Your task to perform on an android device: Set the phone to "Do not disturb". Image 0: 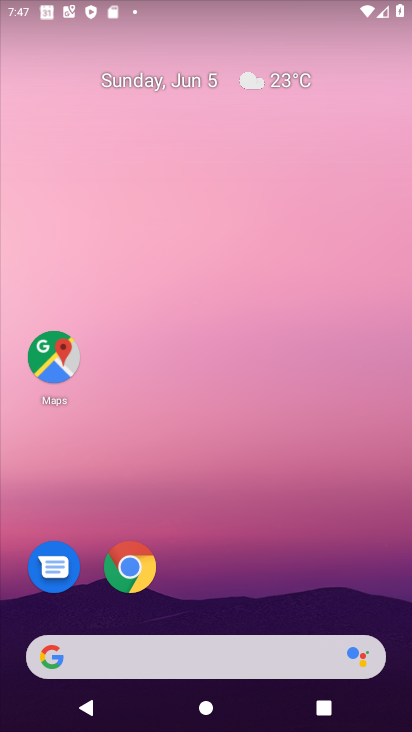
Step 0: drag from (194, 7) to (245, 426)
Your task to perform on an android device: Set the phone to "Do not disturb". Image 1: 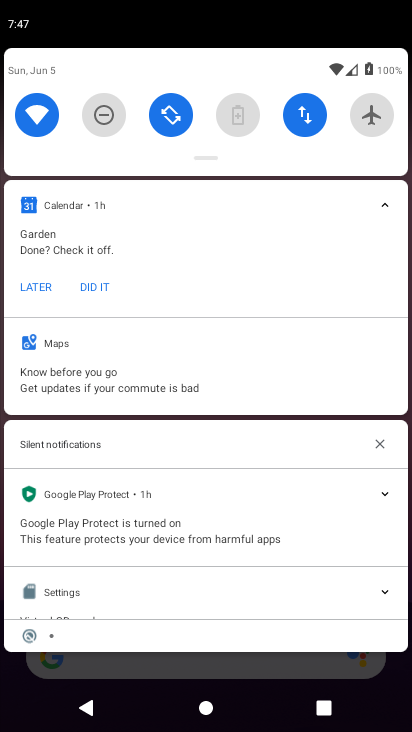
Step 1: click (103, 116)
Your task to perform on an android device: Set the phone to "Do not disturb". Image 2: 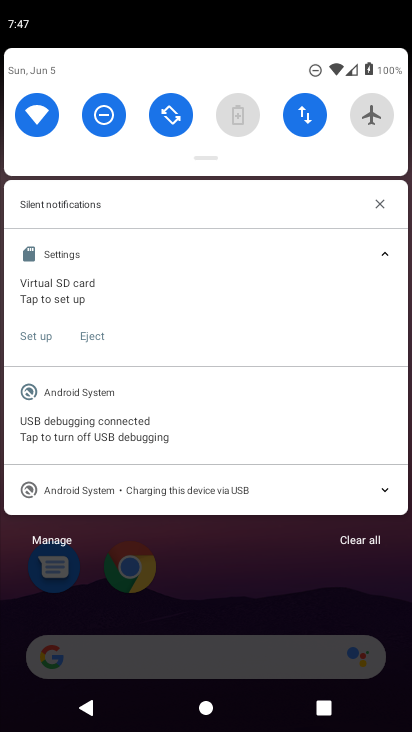
Step 2: task complete